Your task to perform on an android device: turn off translation in the chrome app Image 0: 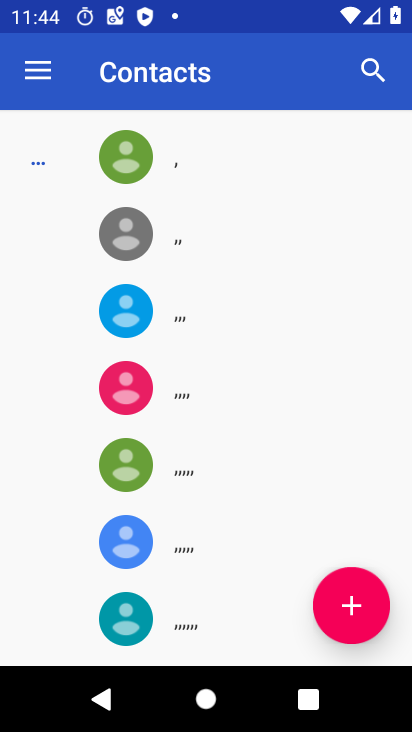
Step 0: press home button
Your task to perform on an android device: turn off translation in the chrome app Image 1: 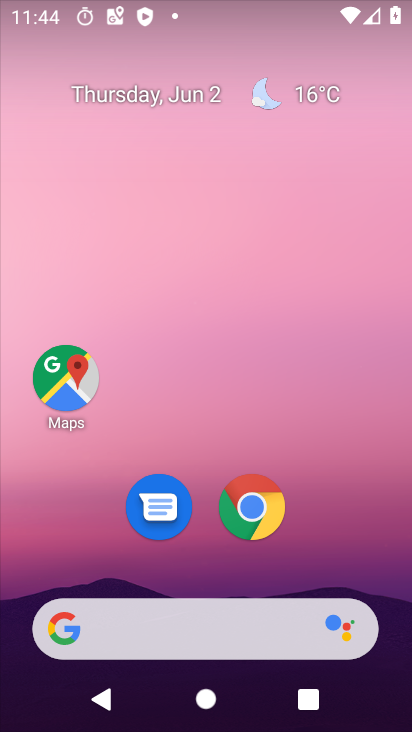
Step 1: drag from (393, 645) to (270, 46)
Your task to perform on an android device: turn off translation in the chrome app Image 2: 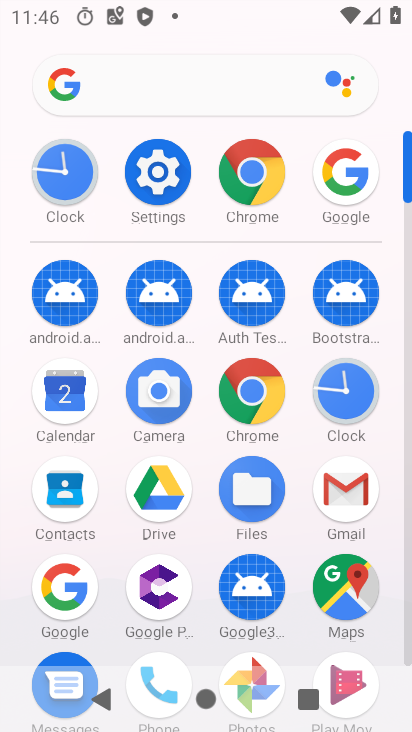
Step 2: click (266, 388)
Your task to perform on an android device: turn off translation in the chrome app Image 3: 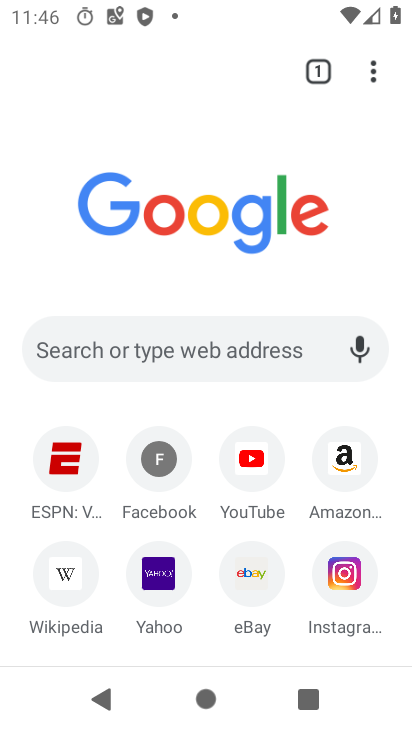
Step 3: click (375, 70)
Your task to perform on an android device: turn off translation in the chrome app Image 4: 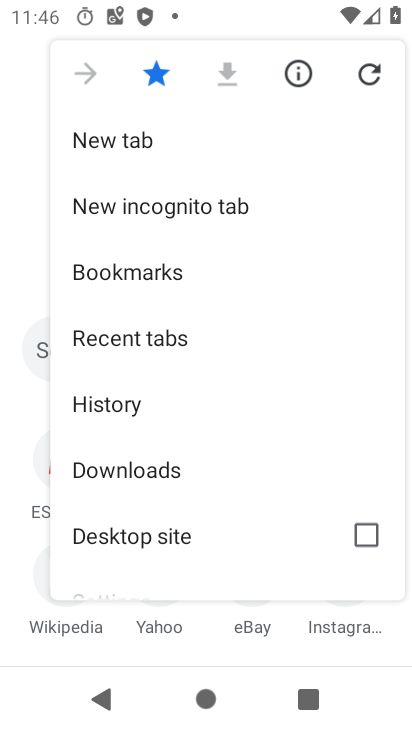
Step 4: drag from (192, 529) to (204, 152)
Your task to perform on an android device: turn off translation in the chrome app Image 5: 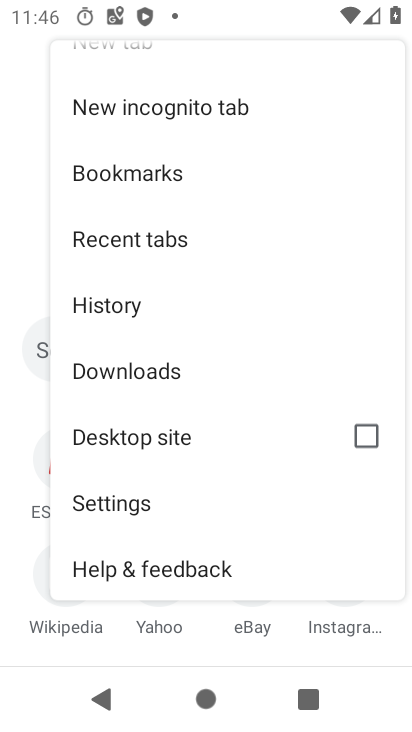
Step 5: click (123, 500)
Your task to perform on an android device: turn off translation in the chrome app Image 6: 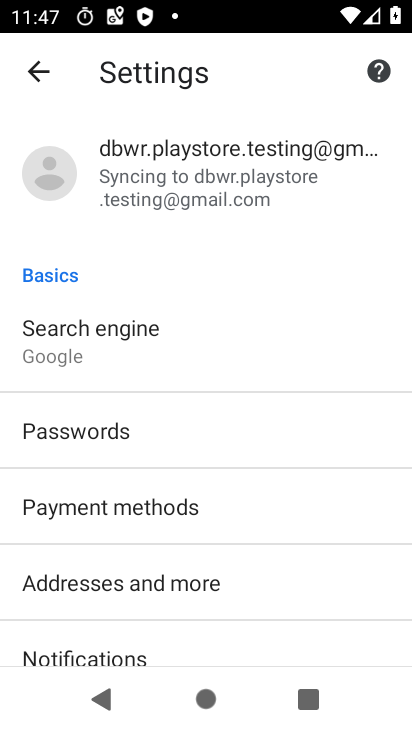
Step 6: drag from (233, 585) to (254, 207)
Your task to perform on an android device: turn off translation in the chrome app Image 7: 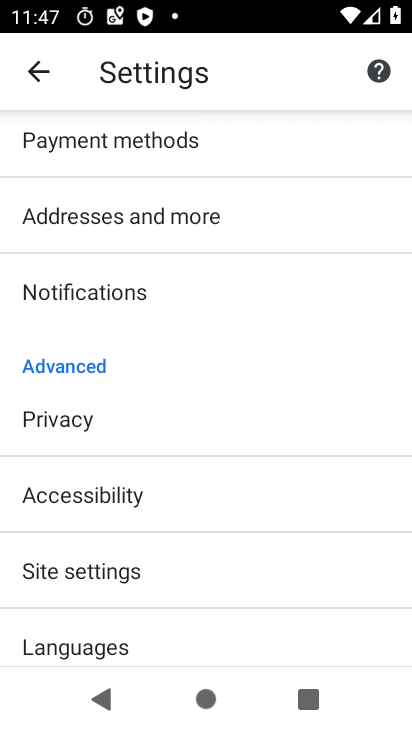
Step 7: click (153, 635)
Your task to perform on an android device: turn off translation in the chrome app Image 8: 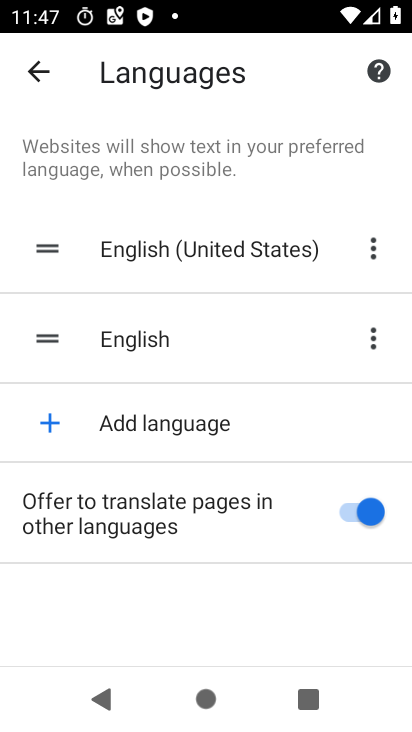
Step 8: click (328, 502)
Your task to perform on an android device: turn off translation in the chrome app Image 9: 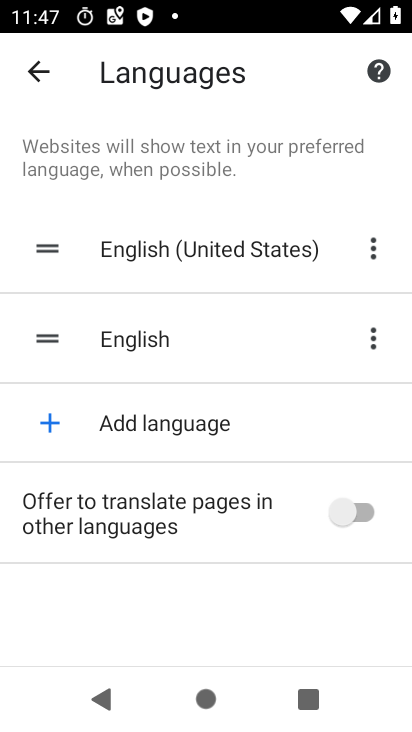
Step 9: task complete